Your task to perform on an android device: delete location history Image 0: 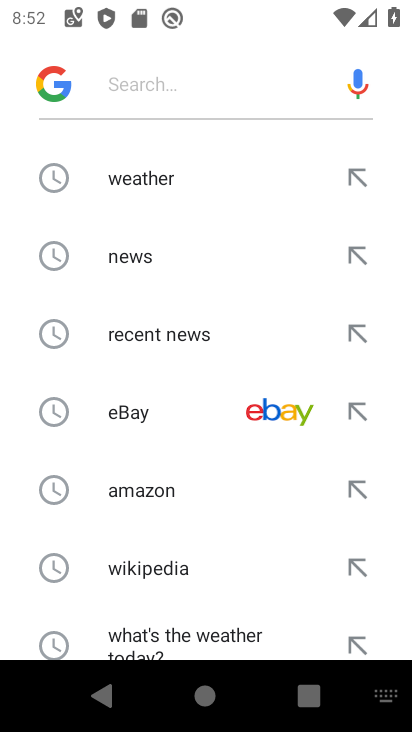
Step 0: press home button
Your task to perform on an android device: delete location history Image 1: 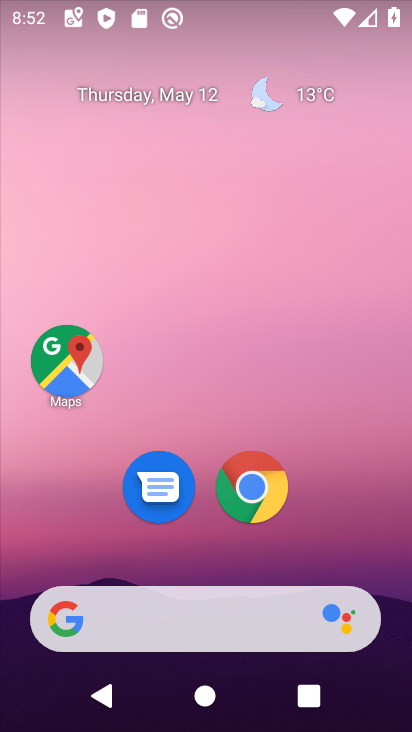
Step 1: click (68, 368)
Your task to perform on an android device: delete location history Image 2: 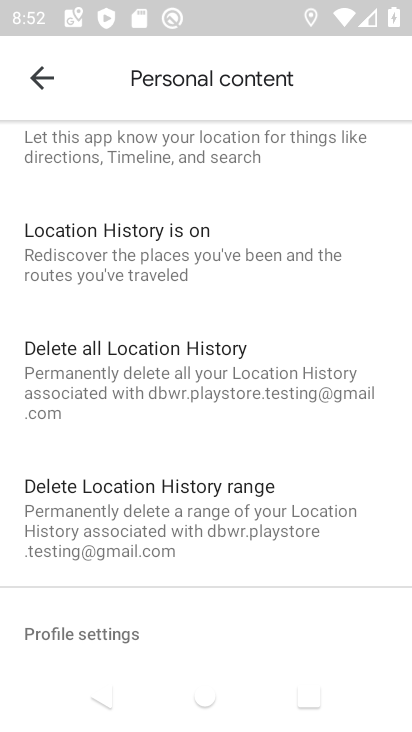
Step 2: click (102, 363)
Your task to perform on an android device: delete location history Image 3: 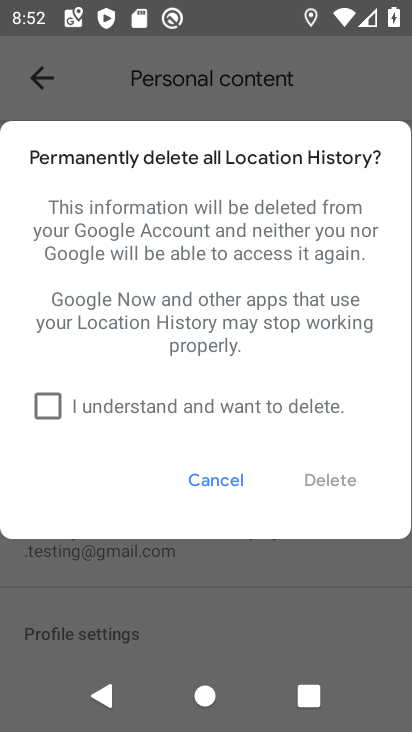
Step 3: click (58, 397)
Your task to perform on an android device: delete location history Image 4: 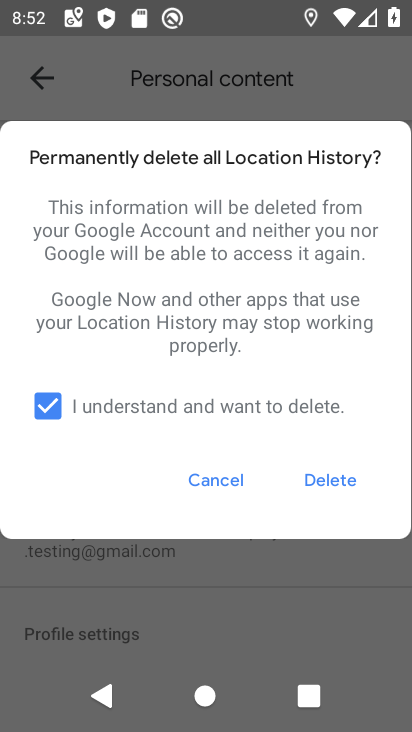
Step 4: click (336, 484)
Your task to perform on an android device: delete location history Image 5: 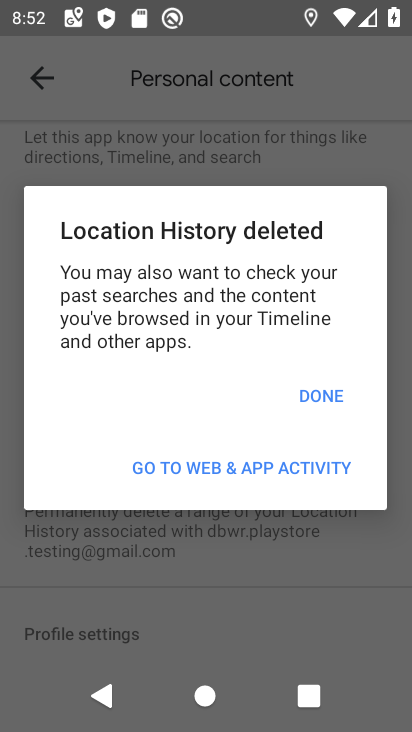
Step 5: click (326, 397)
Your task to perform on an android device: delete location history Image 6: 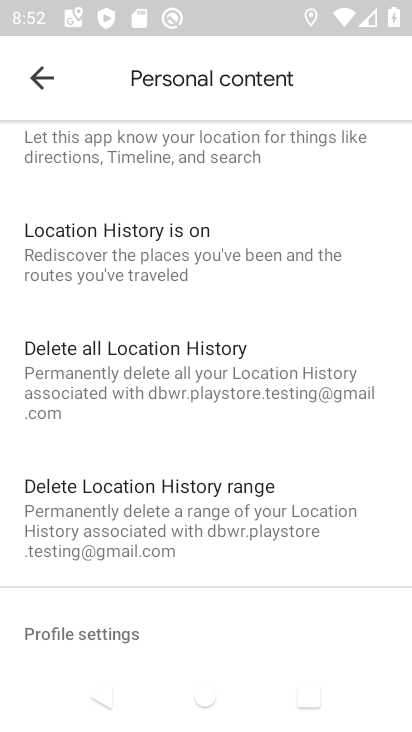
Step 6: task complete